Your task to perform on an android device: open chrome privacy settings Image 0: 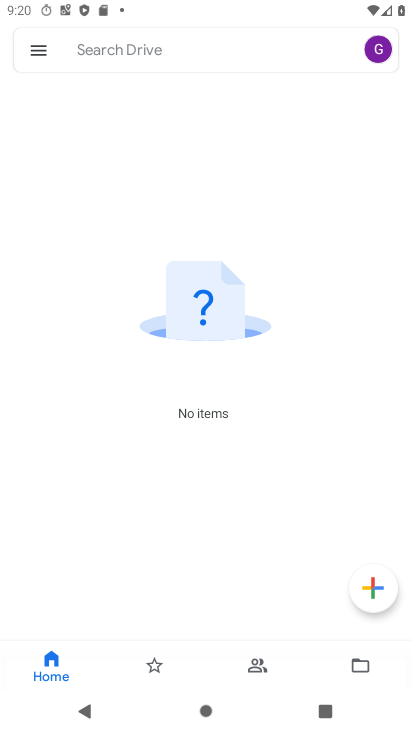
Step 0: press home button
Your task to perform on an android device: open chrome privacy settings Image 1: 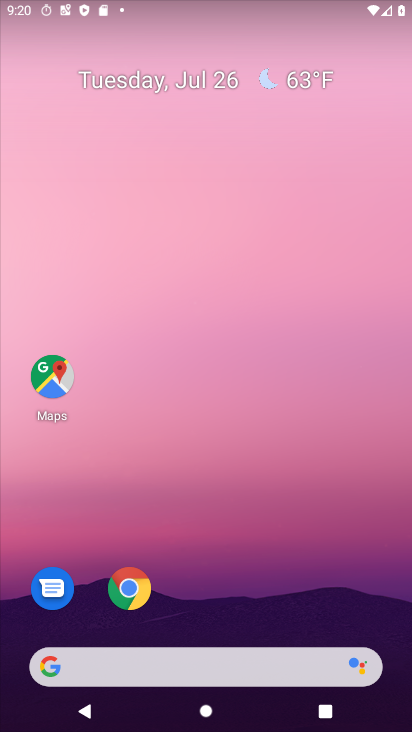
Step 1: click (143, 586)
Your task to perform on an android device: open chrome privacy settings Image 2: 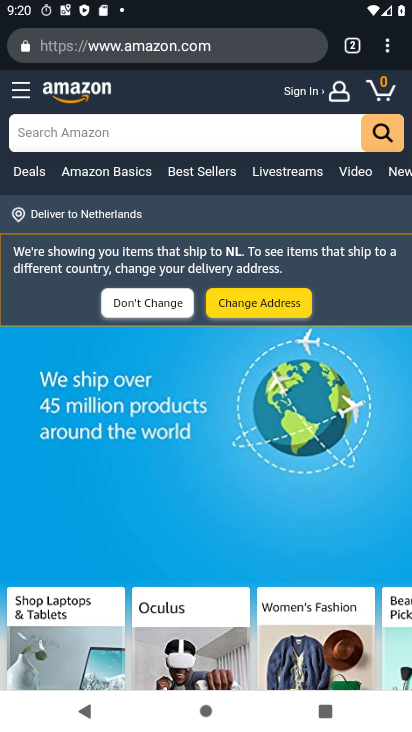
Step 2: click (395, 52)
Your task to perform on an android device: open chrome privacy settings Image 3: 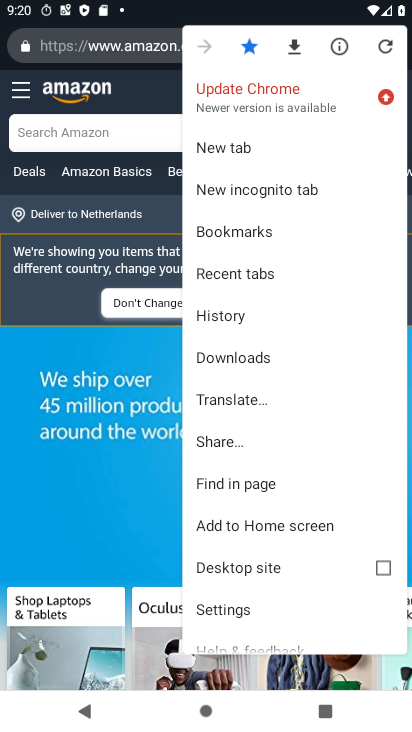
Step 3: click (263, 608)
Your task to perform on an android device: open chrome privacy settings Image 4: 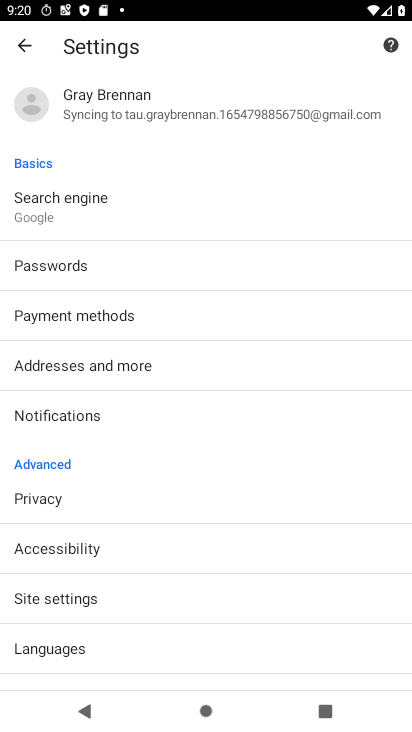
Step 4: click (204, 503)
Your task to perform on an android device: open chrome privacy settings Image 5: 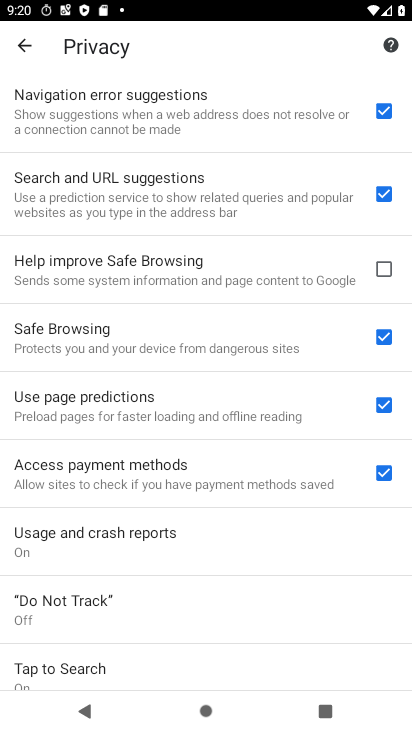
Step 5: task complete